Your task to perform on an android device: Show me the alarms in the clock app Image 0: 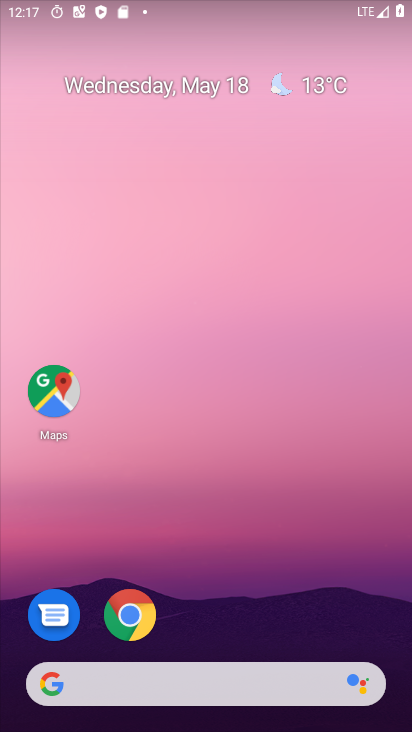
Step 0: drag from (139, 678) to (289, 93)
Your task to perform on an android device: Show me the alarms in the clock app Image 1: 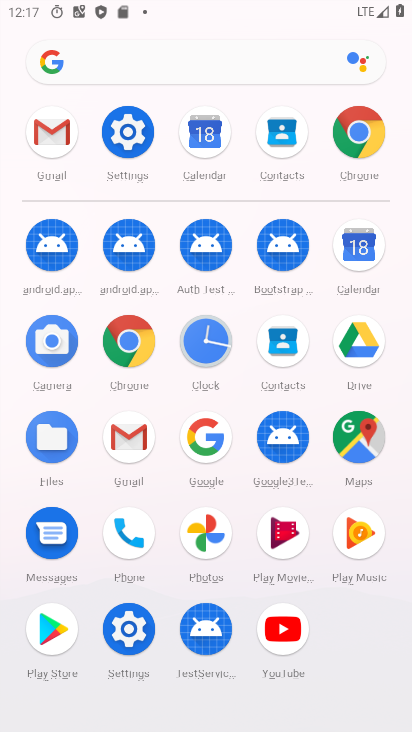
Step 1: click (209, 346)
Your task to perform on an android device: Show me the alarms in the clock app Image 2: 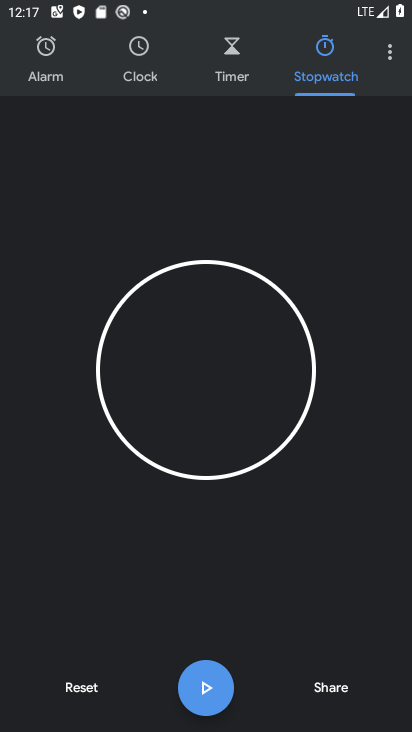
Step 2: click (53, 58)
Your task to perform on an android device: Show me the alarms in the clock app Image 3: 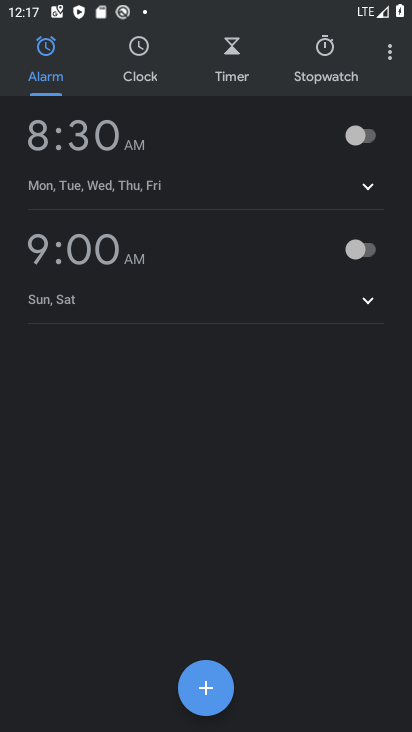
Step 3: task complete